Your task to perform on an android device: Clear the shopping cart on ebay.com. Search for "logitech g903" on ebay.com, select the first entry, add it to the cart, then select checkout. Image 0: 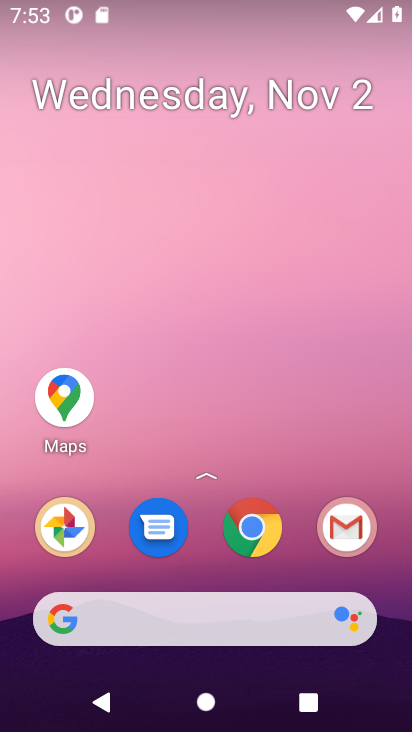
Step 0: click (254, 536)
Your task to perform on an android device: Clear the shopping cart on ebay.com. Search for "logitech g903" on ebay.com, select the first entry, add it to the cart, then select checkout. Image 1: 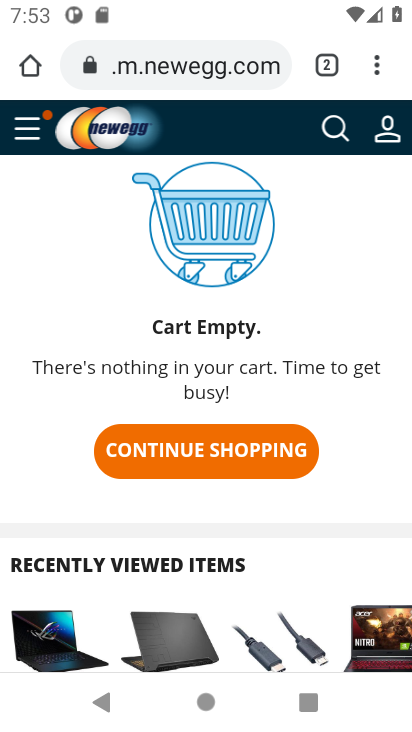
Step 1: click (226, 69)
Your task to perform on an android device: Clear the shopping cart on ebay.com. Search for "logitech g903" on ebay.com, select the first entry, add it to the cart, then select checkout. Image 2: 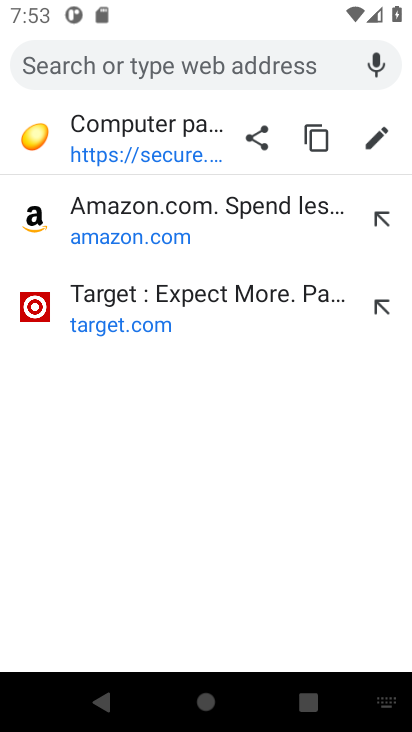
Step 2: type "ebay"
Your task to perform on an android device: Clear the shopping cart on ebay.com. Search for "logitech g903" on ebay.com, select the first entry, add it to the cart, then select checkout. Image 3: 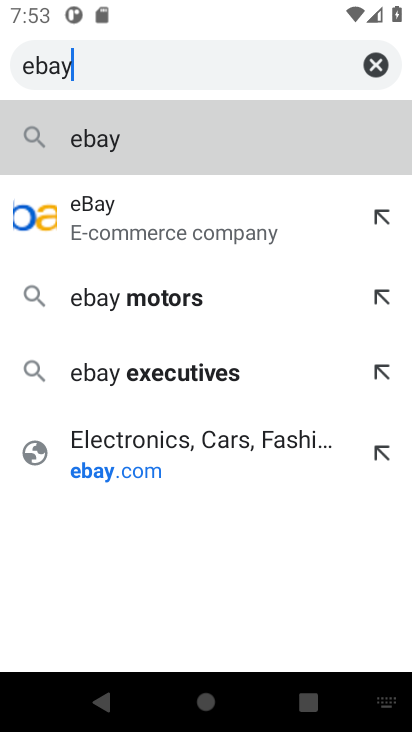
Step 3: click (126, 156)
Your task to perform on an android device: Clear the shopping cart on ebay.com. Search for "logitech g903" on ebay.com, select the first entry, add it to the cart, then select checkout. Image 4: 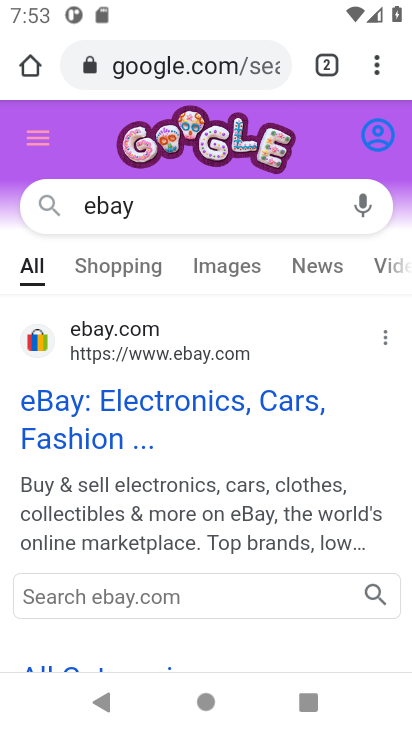
Step 4: click (93, 395)
Your task to perform on an android device: Clear the shopping cart on ebay.com. Search for "logitech g903" on ebay.com, select the first entry, add it to the cart, then select checkout. Image 5: 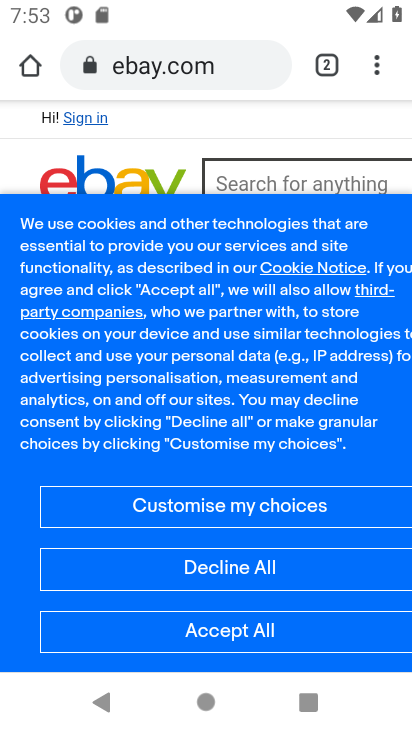
Step 5: click (207, 629)
Your task to perform on an android device: Clear the shopping cart on ebay.com. Search for "logitech g903" on ebay.com, select the first entry, add it to the cart, then select checkout. Image 6: 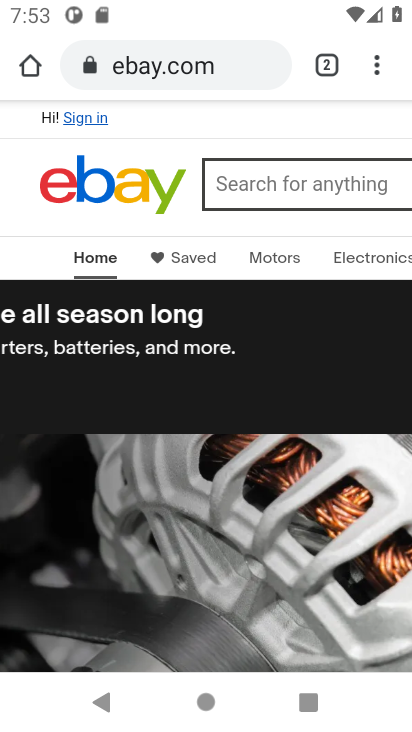
Step 6: drag from (358, 227) to (17, 144)
Your task to perform on an android device: Clear the shopping cart on ebay.com. Search for "logitech g903" on ebay.com, select the first entry, add it to the cart, then select checkout. Image 7: 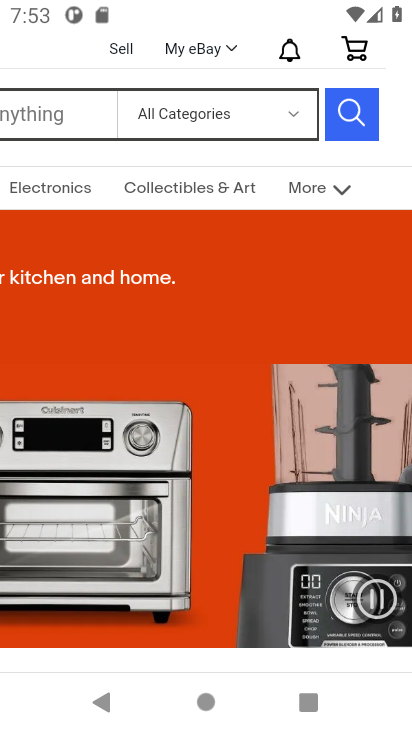
Step 7: click (358, 48)
Your task to perform on an android device: Clear the shopping cart on ebay.com. Search for "logitech g903" on ebay.com, select the first entry, add it to the cart, then select checkout. Image 8: 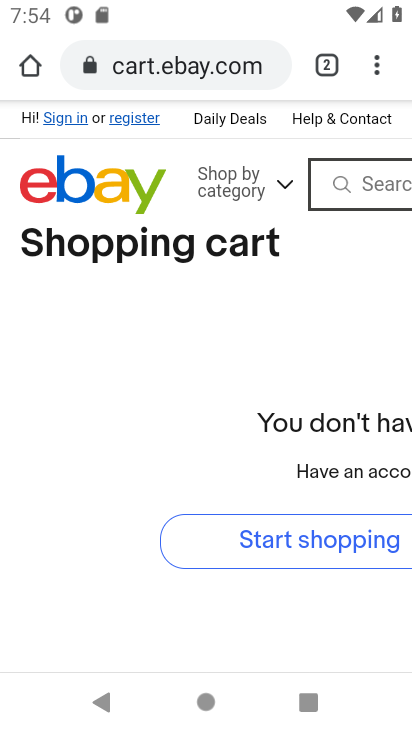
Step 8: click (367, 187)
Your task to perform on an android device: Clear the shopping cart on ebay.com. Search for "logitech g903" on ebay.com, select the first entry, add it to the cart, then select checkout. Image 9: 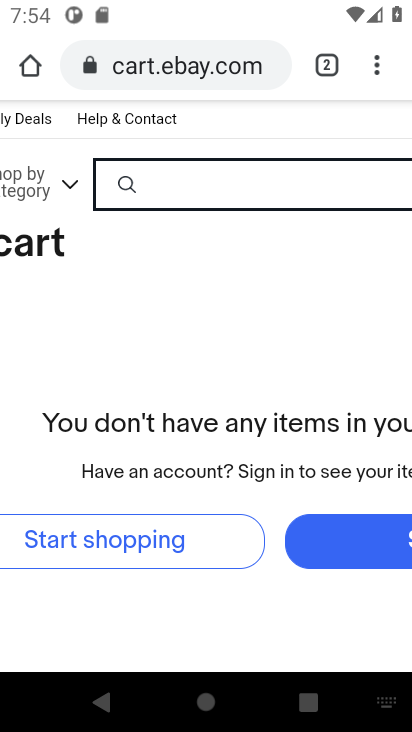
Step 9: type "logitech g903"
Your task to perform on an android device: Clear the shopping cart on ebay.com. Search for "logitech g903" on ebay.com, select the first entry, add it to the cart, then select checkout. Image 10: 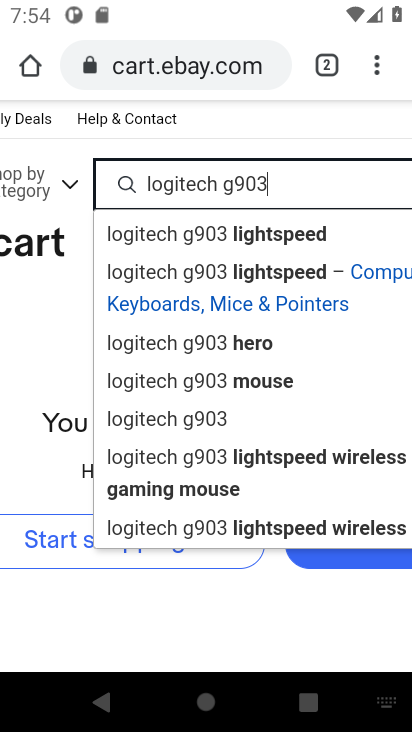
Step 10: press enter
Your task to perform on an android device: Clear the shopping cart on ebay.com. Search for "logitech g903" on ebay.com, select the first entry, add it to the cart, then select checkout. Image 11: 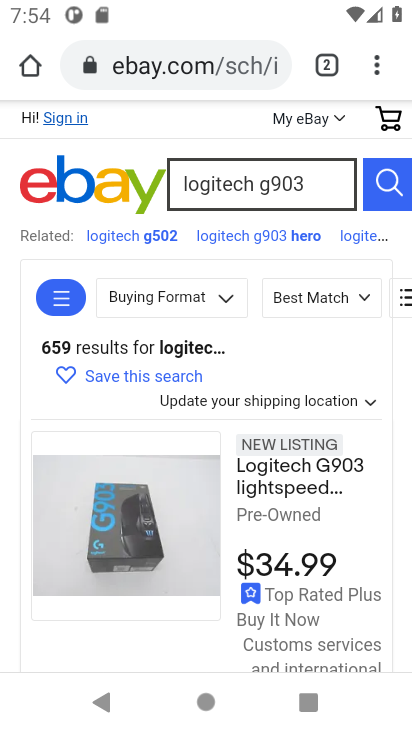
Step 11: click (291, 480)
Your task to perform on an android device: Clear the shopping cart on ebay.com. Search for "logitech g903" on ebay.com, select the first entry, add it to the cart, then select checkout. Image 12: 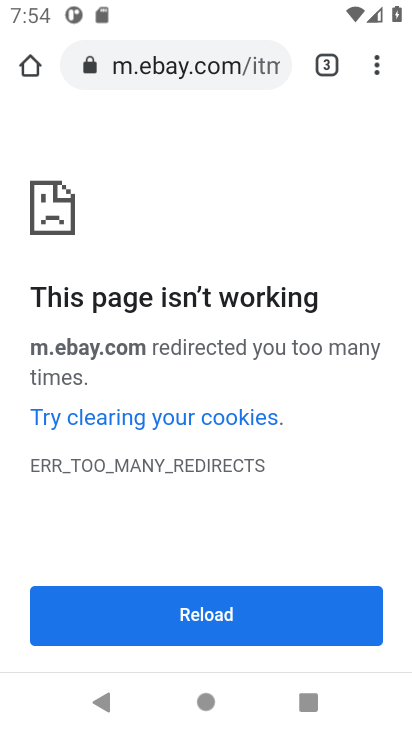
Step 12: click (169, 617)
Your task to perform on an android device: Clear the shopping cart on ebay.com. Search for "logitech g903" on ebay.com, select the first entry, add it to the cart, then select checkout. Image 13: 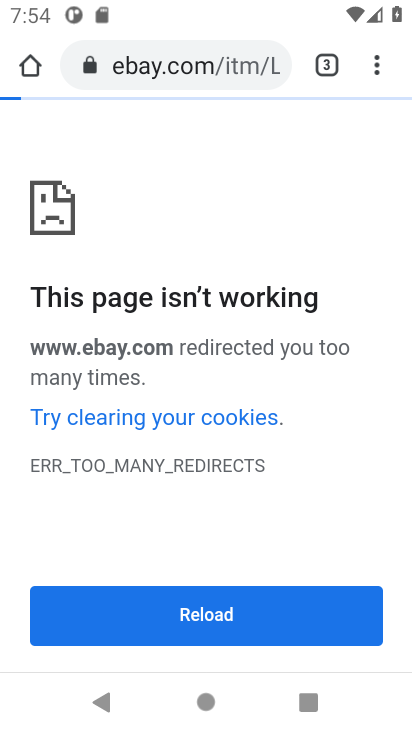
Step 13: task complete